Your task to perform on an android device: Open Chrome and go to settings Image 0: 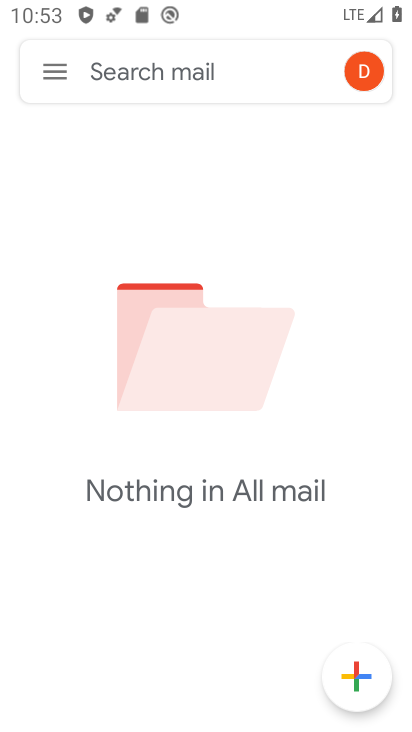
Step 0: press home button
Your task to perform on an android device: Open Chrome and go to settings Image 1: 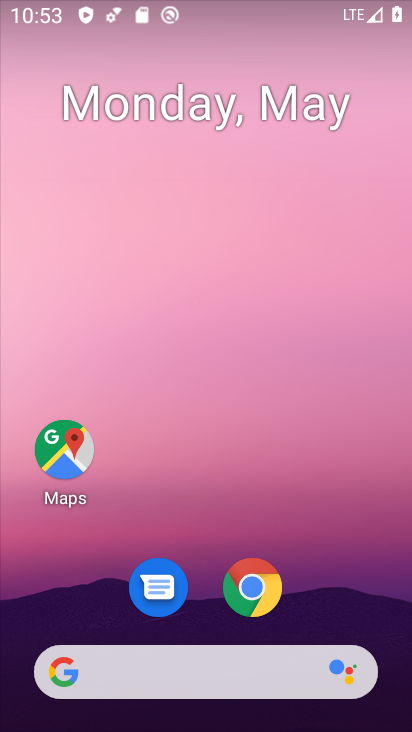
Step 1: click (255, 595)
Your task to perform on an android device: Open Chrome and go to settings Image 2: 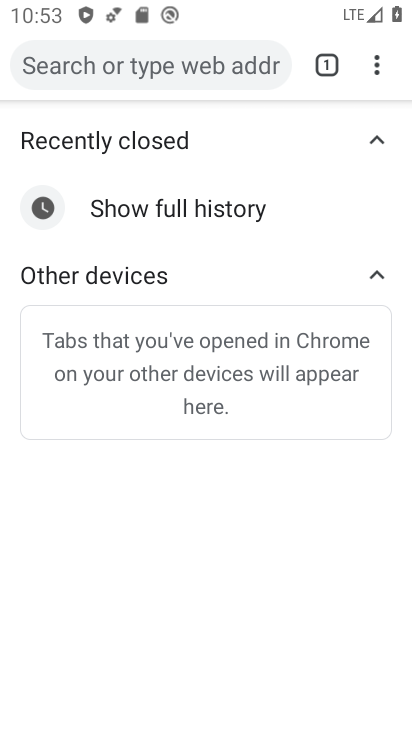
Step 2: click (381, 80)
Your task to perform on an android device: Open Chrome and go to settings Image 3: 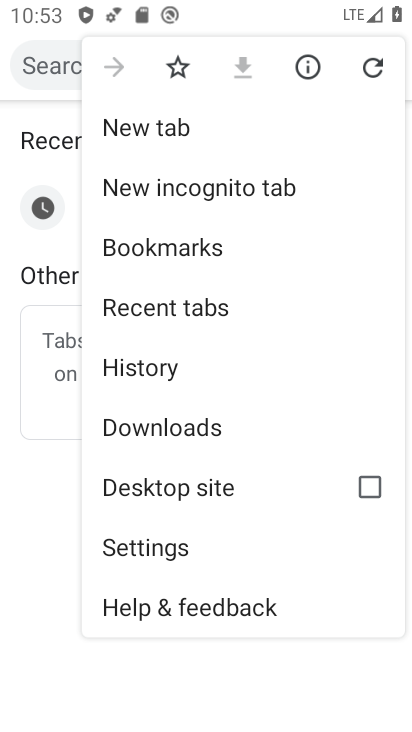
Step 3: click (220, 549)
Your task to perform on an android device: Open Chrome and go to settings Image 4: 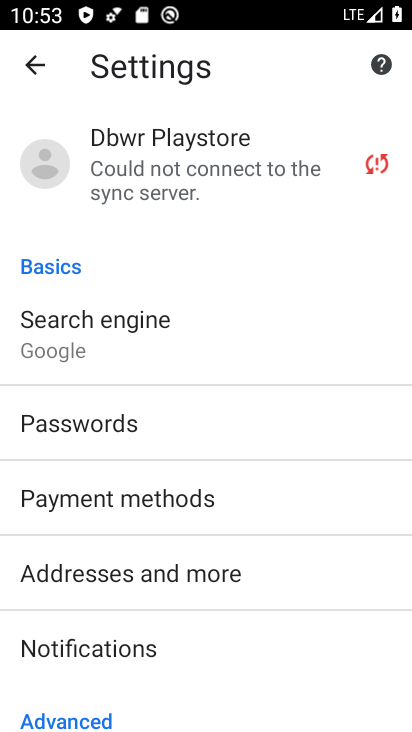
Step 4: task complete